Your task to perform on an android device: remove spam from my inbox in the gmail app Image 0: 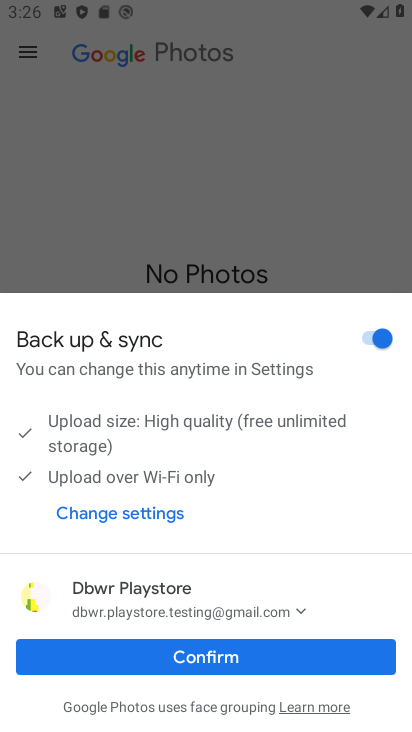
Step 0: press home button
Your task to perform on an android device: remove spam from my inbox in the gmail app Image 1: 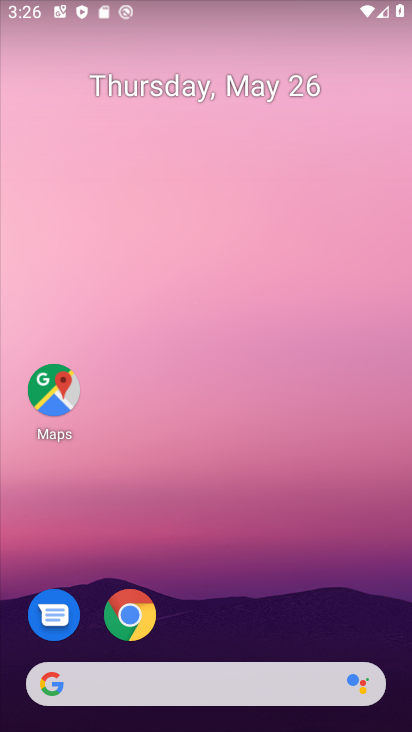
Step 1: drag from (299, 635) to (326, 141)
Your task to perform on an android device: remove spam from my inbox in the gmail app Image 2: 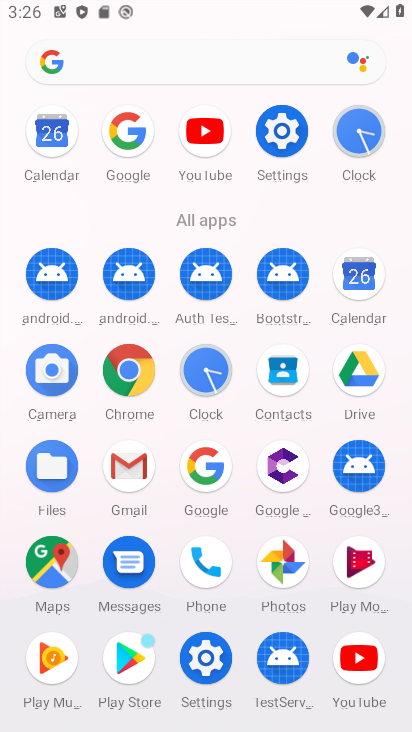
Step 2: click (121, 460)
Your task to perform on an android device: remove spam from my inbox in the gmail app Image 3: 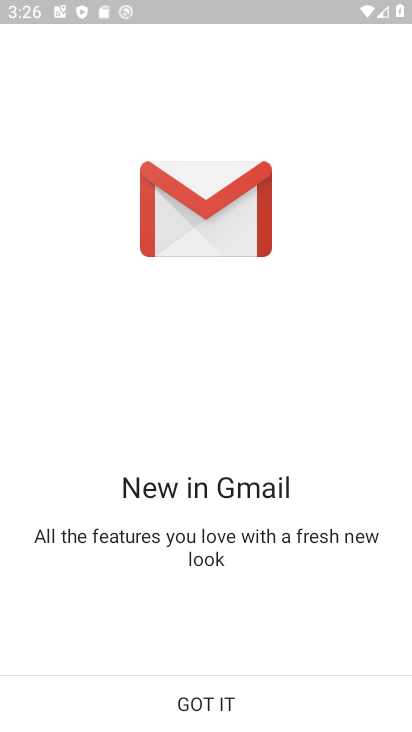
Step 3: click (204, 708)
Your task to perform on an android device: remove spam from my inbox in the gmail app Image 4: 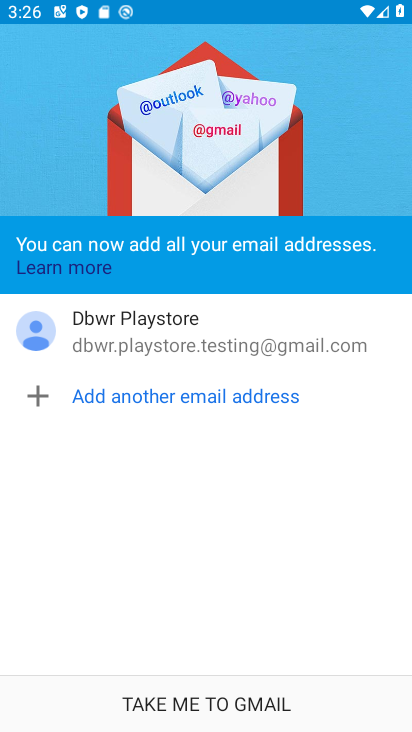
Step 4: click (204, 705)
Your task to perform on an android device: remove spam from my inbox in the gmail app Image 5: 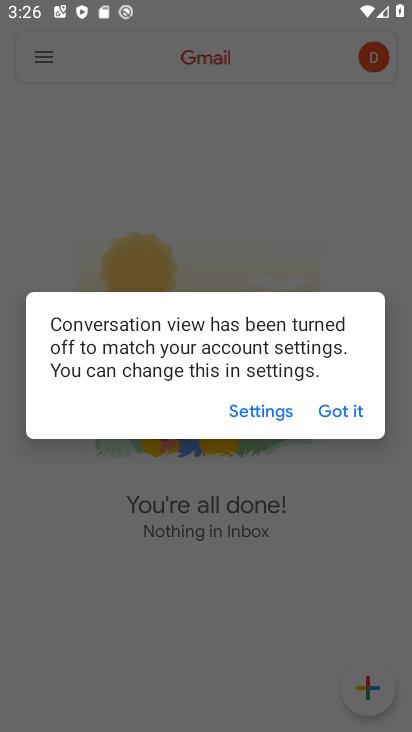
Step 5: click (341, 412)
Your task to perform on an android device: remove spam from my inbox in the gmail app Image 6: 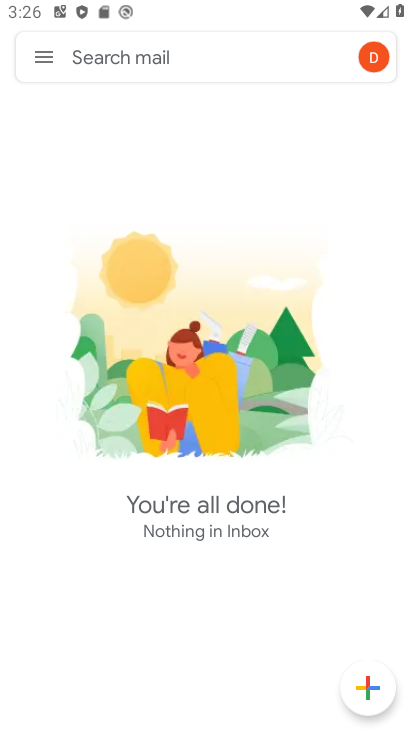
Step 6: click (32, 57)
Your task to perform on an android device: remove spam from my inbox in the gmail app Image 7: 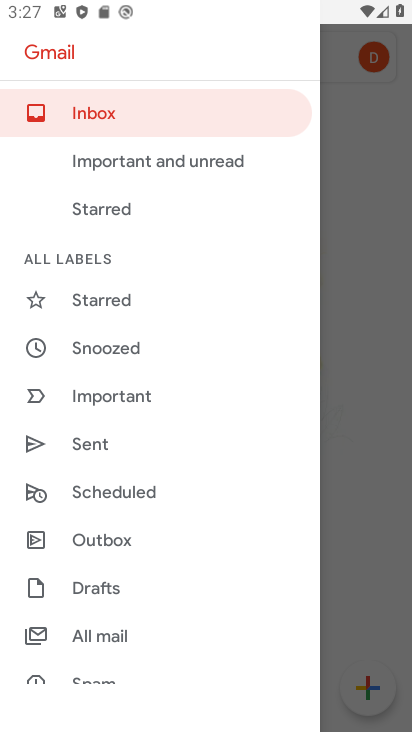
Step 7: drag from (130, 615) to (115, 477)
Your task to perform on an android device: remove spam from my inbox in the gmail app Image 8: 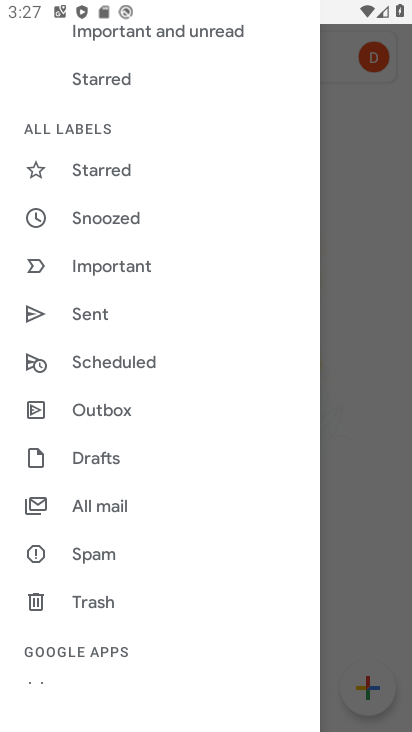
Step 8: click (100, 545)
Your task to perform on an android device: remove spam from my inbox in the gmail app Image 9: 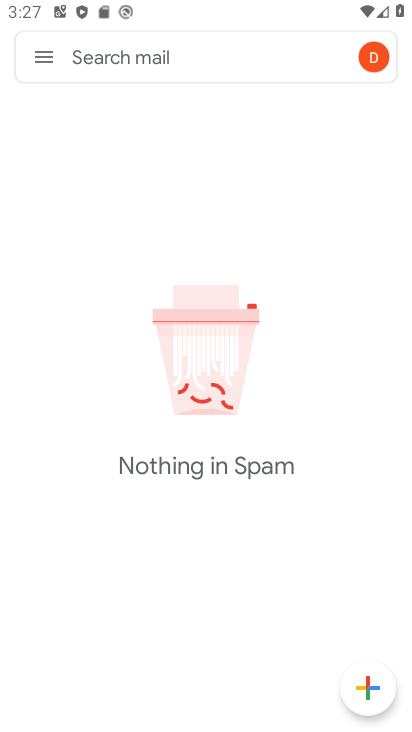
Step 9: task complete